Your task to perform on an android device: Open notification settings Image 0: 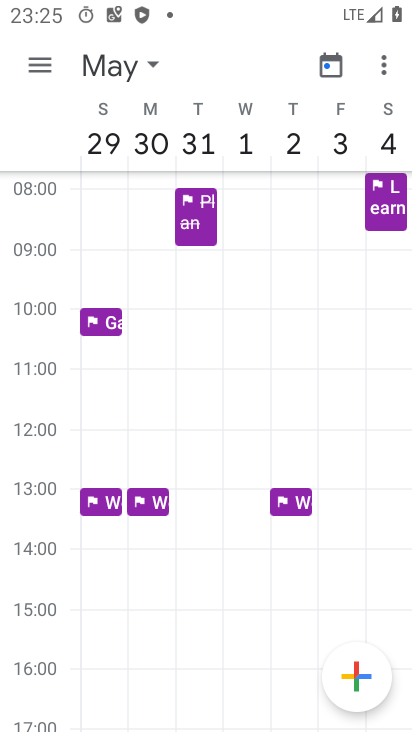
Step 0: press home button
Your task to perform on an android device: Open notification settings Image 1: 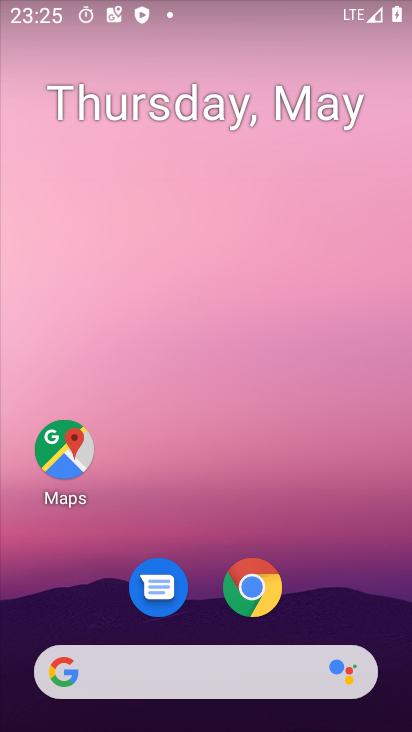
Step 1: drag from (359, 601) to (216, 0)
Your task to perform on an android device: Open notification settings Image 2: 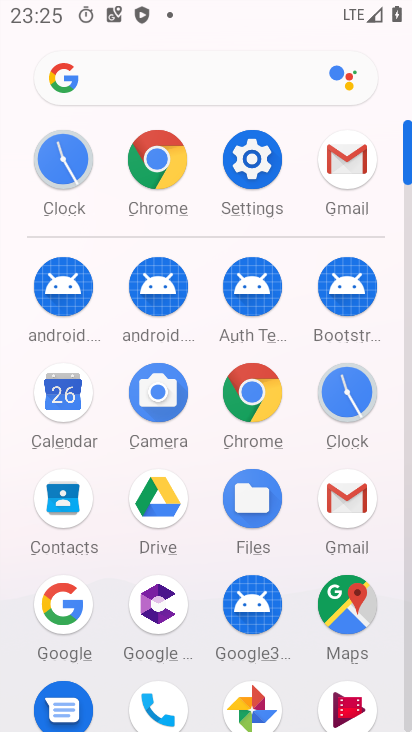
Step 2: click (244, 170)
Your task to perform on an android device: Open notification settings Image 3: 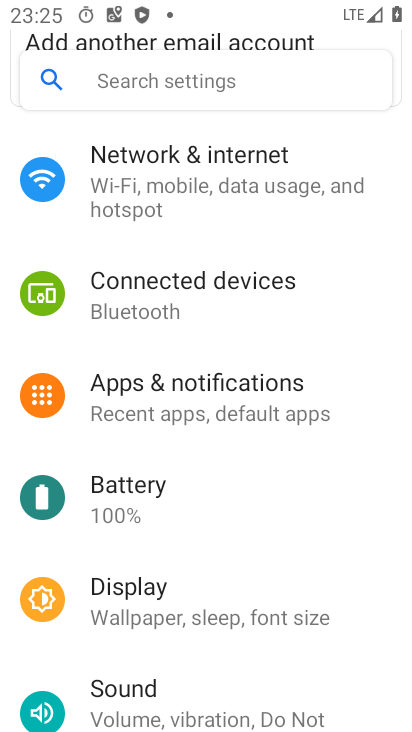
Step 3: click (156, 406)
Your task to perform on an android device: Open notification settings Image 4: 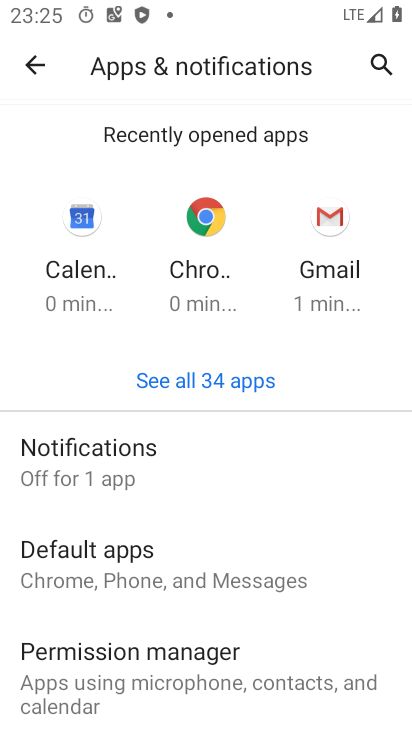
Step 4: task complete